Your task to perform on an android device: Open Yahoo.com Image 0: 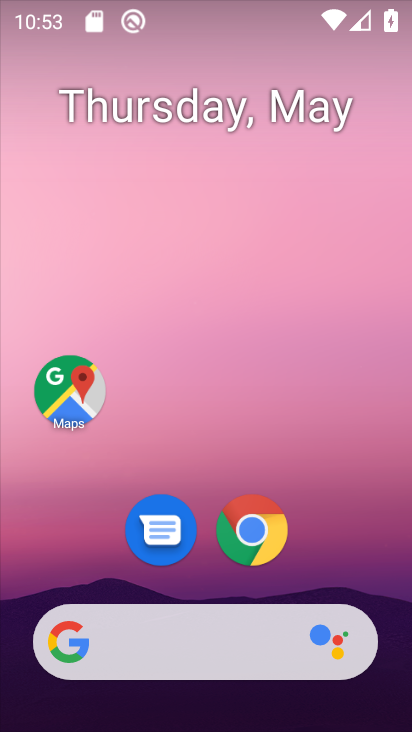
Step 0: drag from (320, 295) to (294, 146)
Your task to perform on an android device: Open Yahoo.com Image 1: 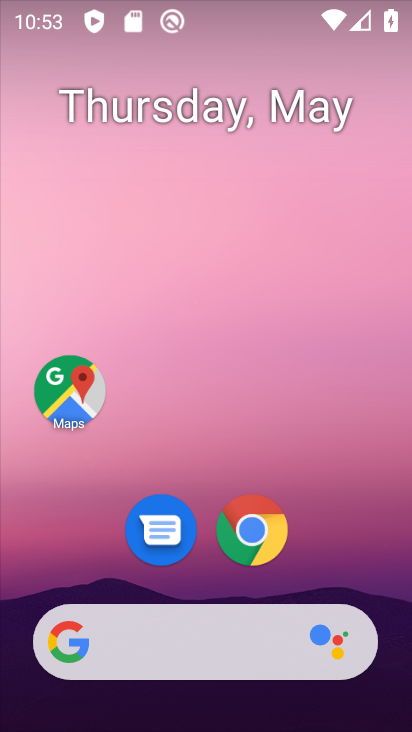
Step 1: drag from (338, 553) to (277, 166)
Your task to perform on an android device: Open Yahoo.com Image 2: 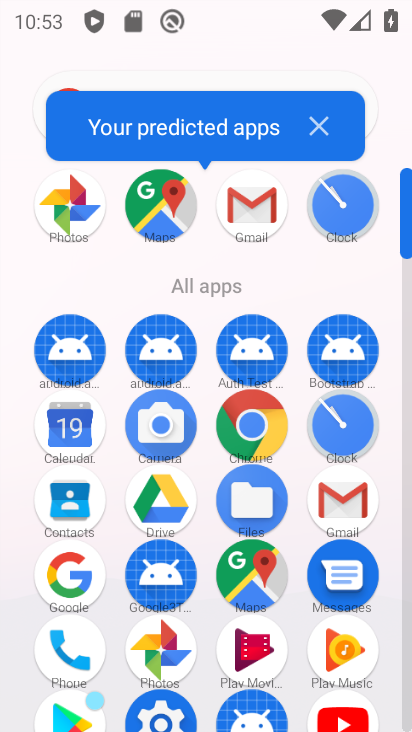
Step 2: click (277, 433)
Your task to perform on an android device: Open Yahoo.com Image 3: 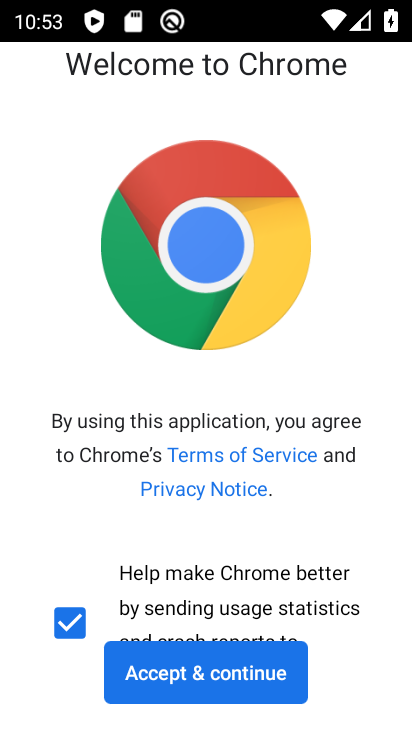
Step 3: click (263, 677)
Your task to perform on an android device: Open Yahoo.com Image 4: 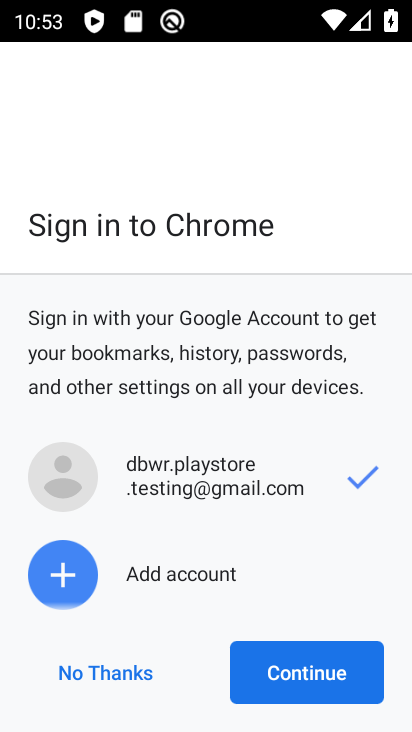
Step 4: click (264, 669)
Your task to perform on an android device: Open Yahoo.com Image 5: 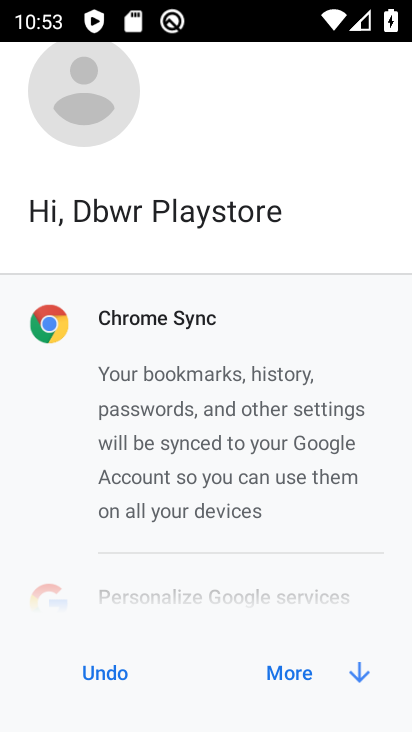
Step 5: click (264, 669)
Your task to perform on an android device: Open Yahoo.com Image 6: 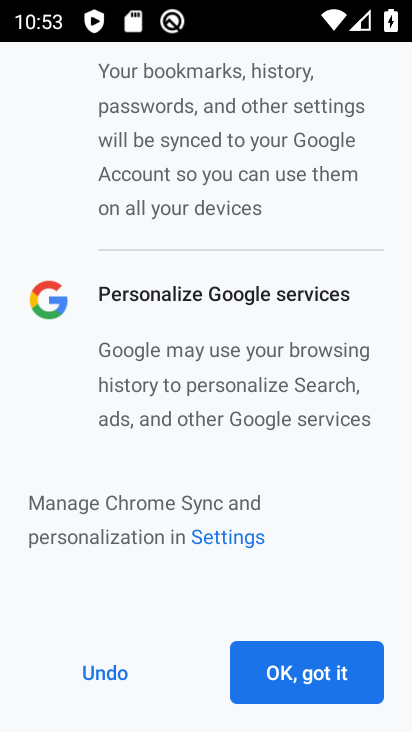
Step 6: click (264, 669)
Your task to perform on an android device: Open Yahoo.com Image 7: 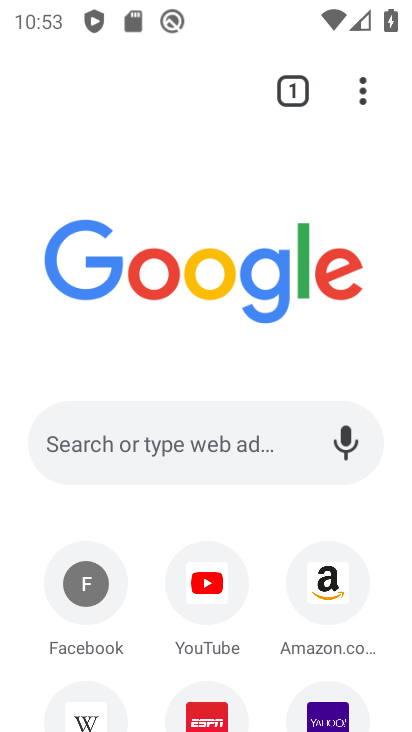
Step 7: click (218, 446)
Your task to perform on an android device: Open Yahoo.com Image 8: 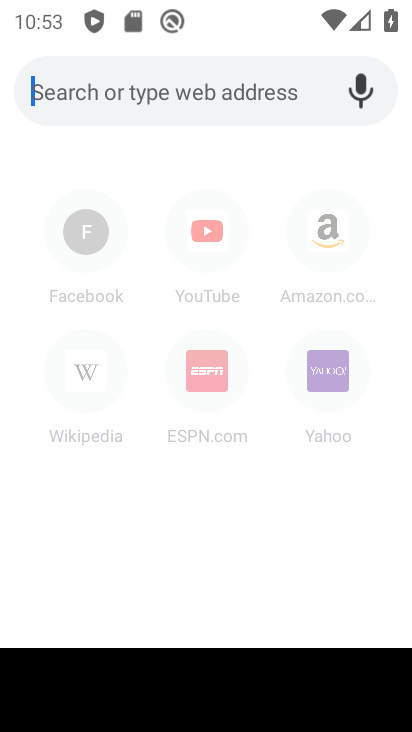
Step 8: type "yahoo.com"
Your task to perform on an android device: Open Yahoo.com Image 9: 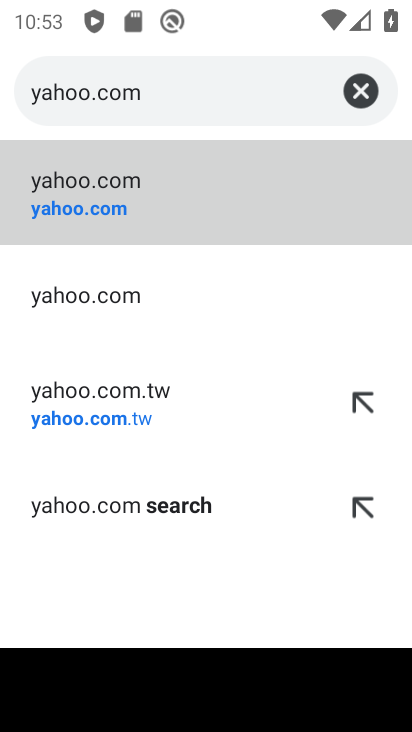
Step 9: click (135, 135)
Your task to perform on an android device: Open Yahoo.com Image 10: 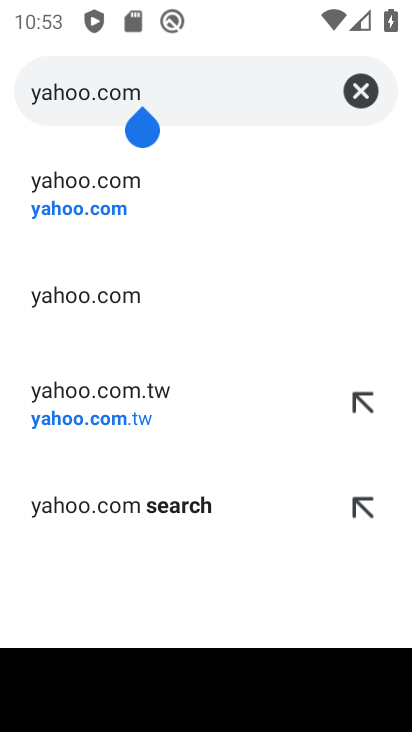
Step 10: click (141, 188)
Your task to perform on an android device: Open Yahoo.com Image 11: 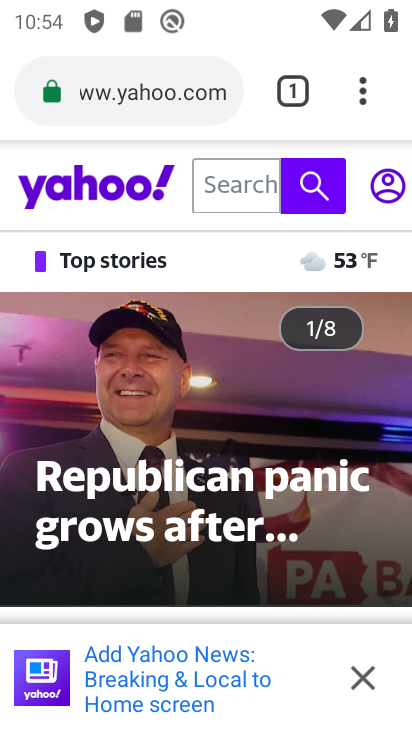
Step 11: task complete